Your task to perform on an android device: Clear all items from cart on costco.com. Add energizer triple a to the cart on costco.com, then select checkout. Image 0: 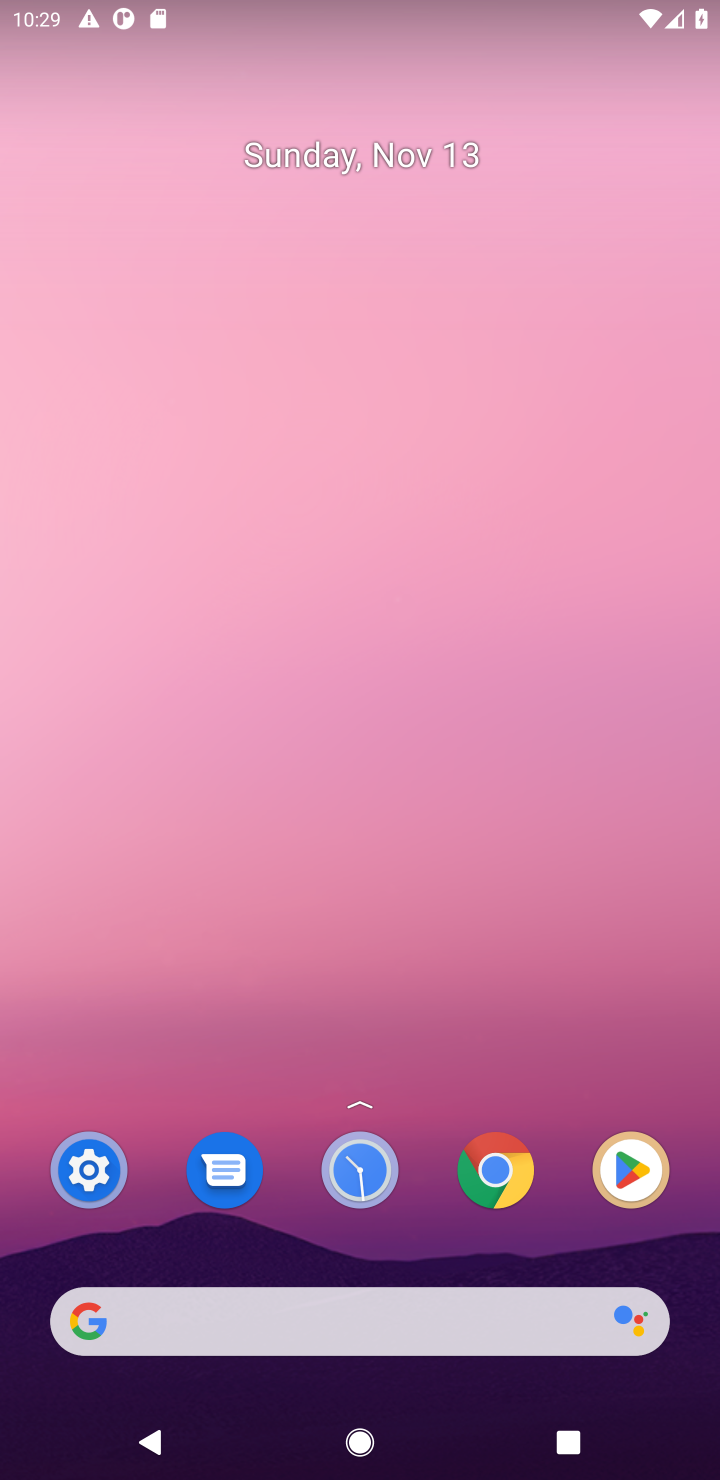
Step 0: click (422, 1304)
Your task to perform on an android device: Clear all items from cart on costco.com. Add energizer triple a to the cart on costco.com, then select checkout. Image 1: 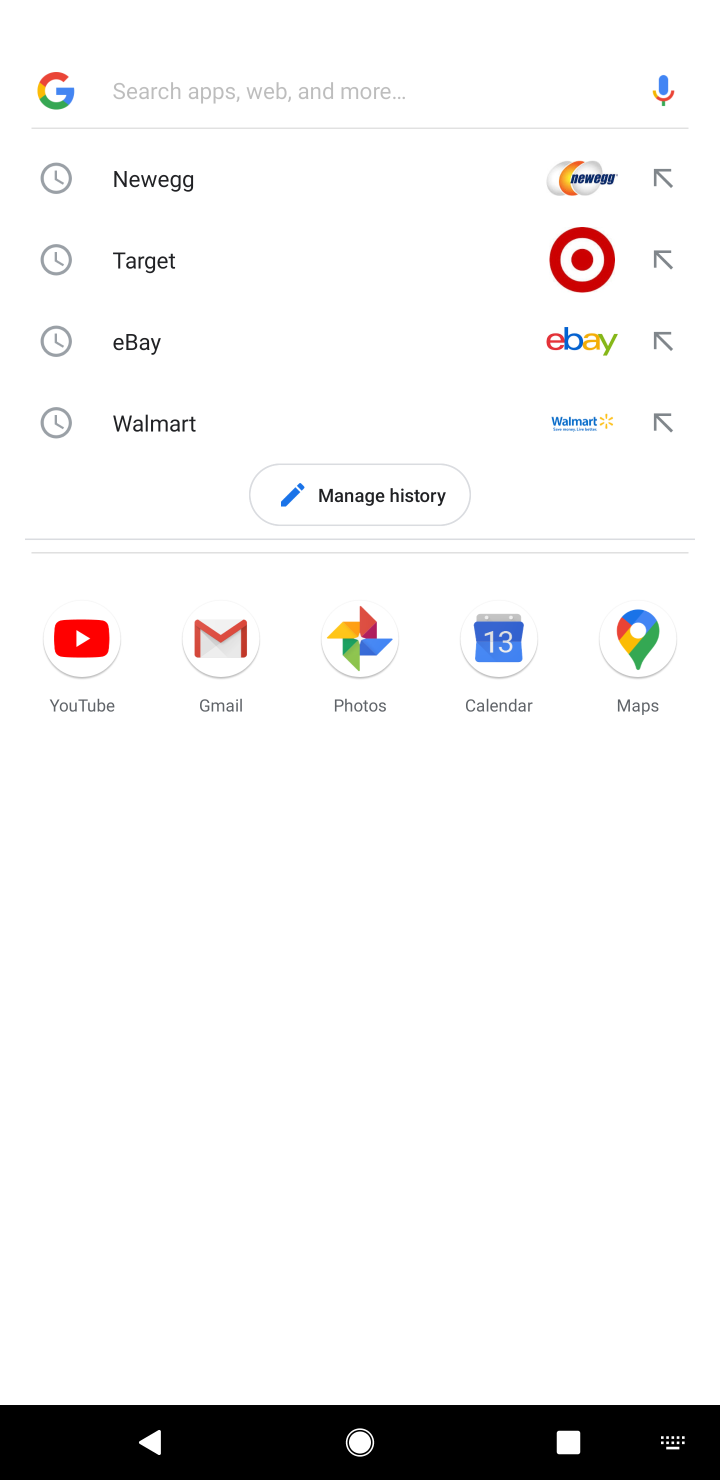
Step 1: type "costco.com"
Your task to perform on an android device: Clear all items from cart on costco.com. Add energizer triple a to the cart on costco.com, then select checkout. Image 2: 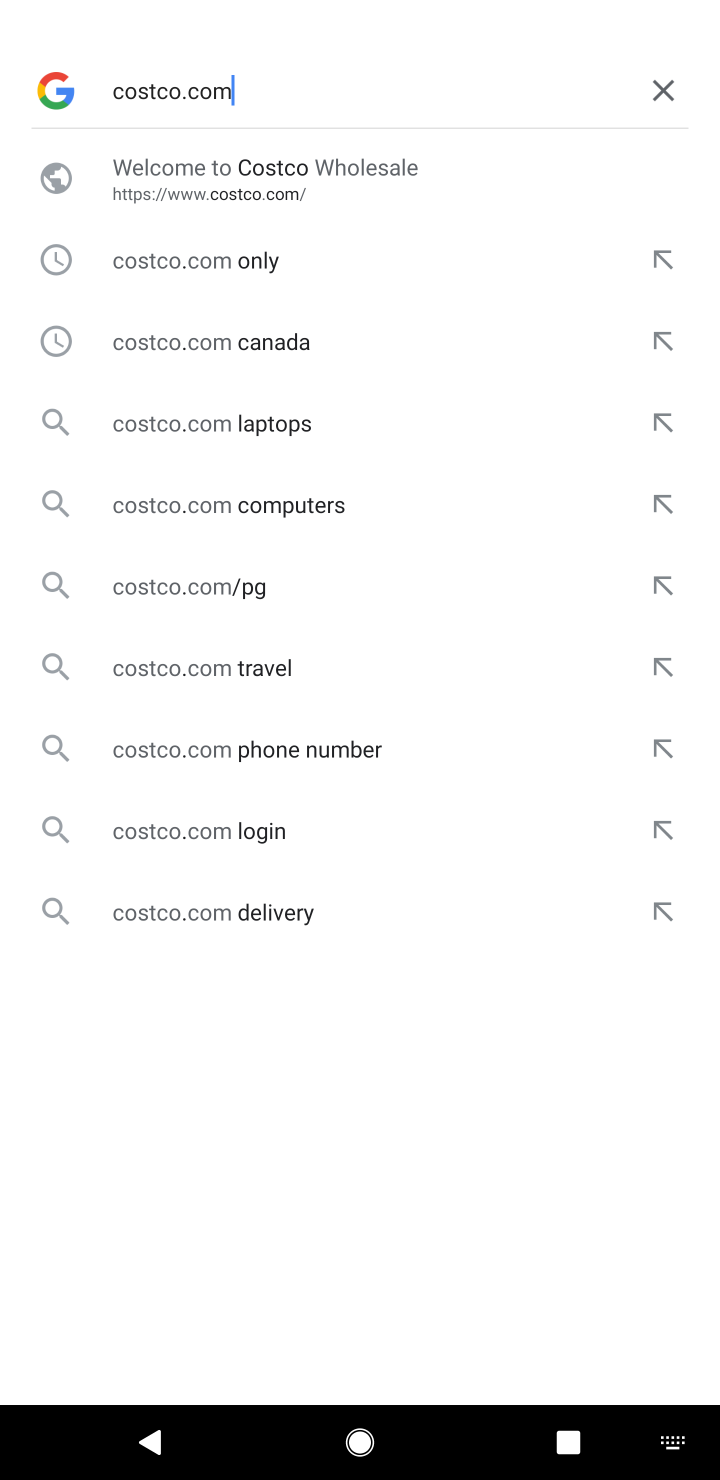
Step 2: click (215, 219)
Your task to perform on an android device: Clear all items from cart on costco.com. Add energizer triple a to the cart on costco.com, then select checkout. Image 3: 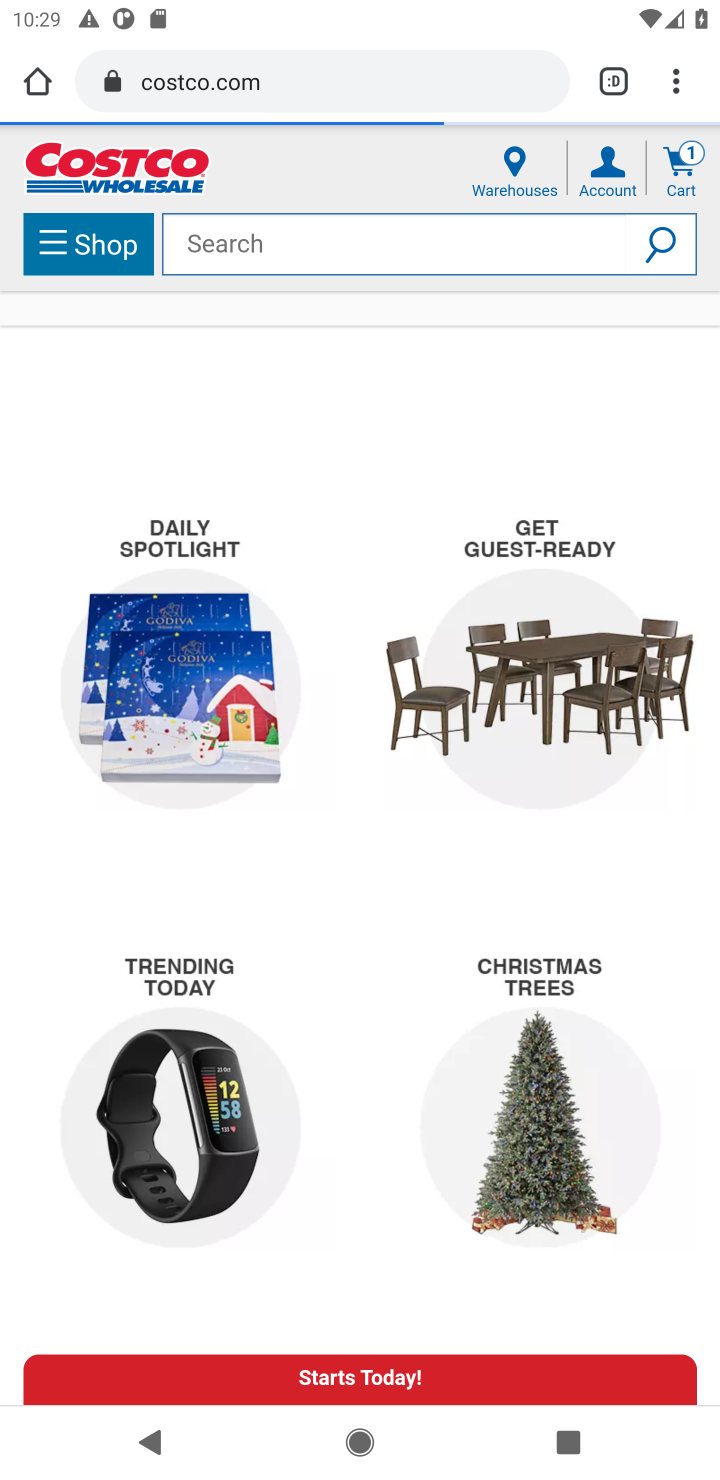
Step 3: click (550, 248)
Your task to perform on an android device: Clear all items from cart on costco.com. Add energizer triple a to the cart on costco.com, then select checkout. Image 4: 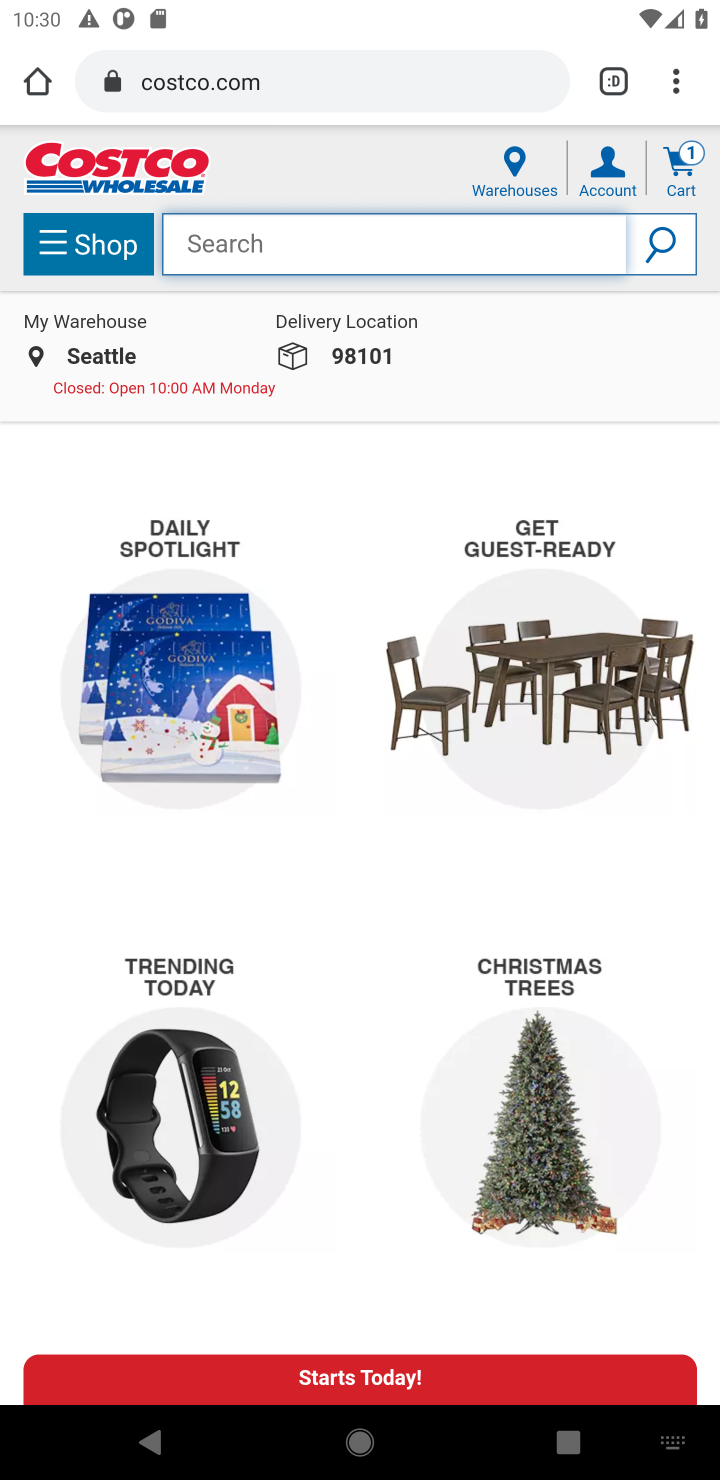
Step 4: type "energizer"
Your task to perform on an android device: Clear all items from cart on costco.com. Add energizer triple a to the cart on costco.com, then select checkout. Image 5: 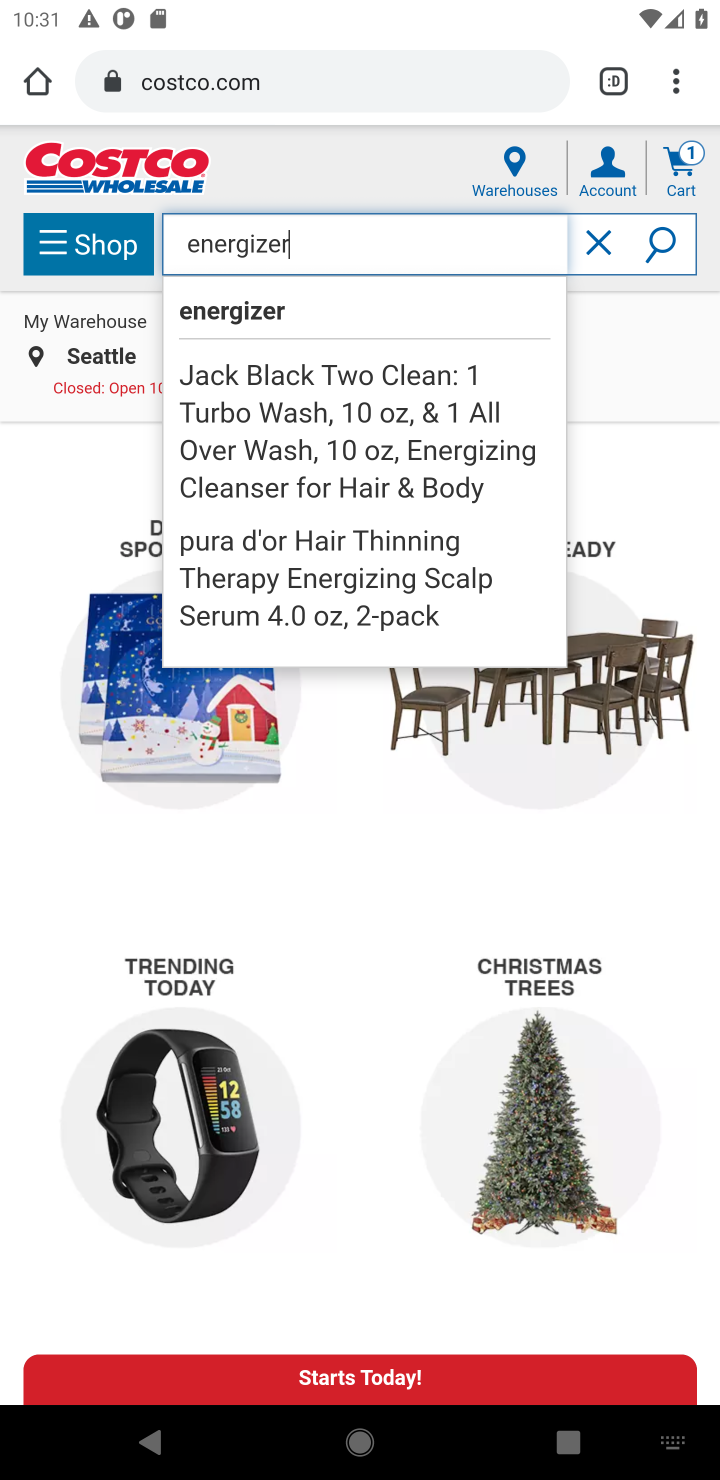
Step 5: type "triple a"
Your task to perform on an android device: Clear all items from cart on costco.com. Add energizer triple a to the cart on costco.com, then select checkout. Image 6: 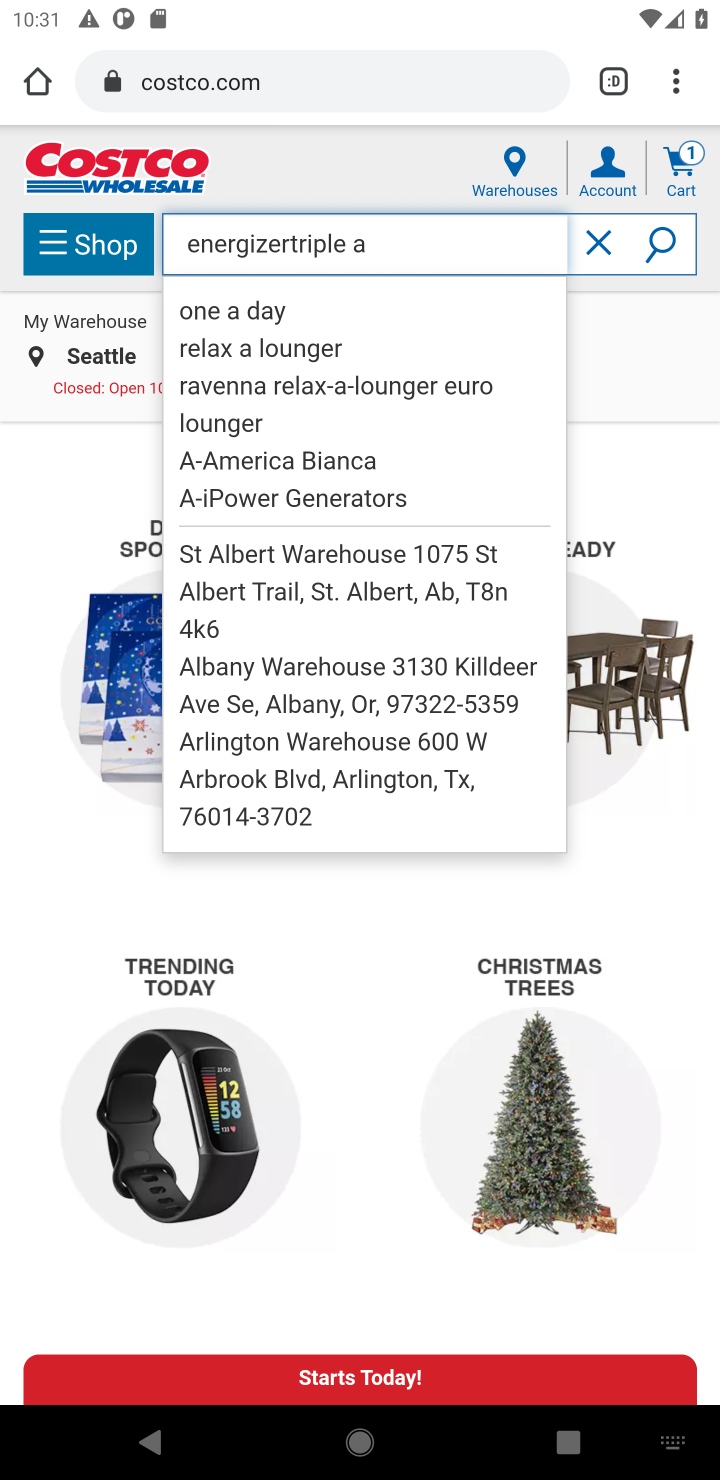
Step 6: click (681, 258)
Your task to perform on an android device: Clear all items from cart on costco.com. Add energizer triple a to the cart on costco.com, then select checkout. Image 7: 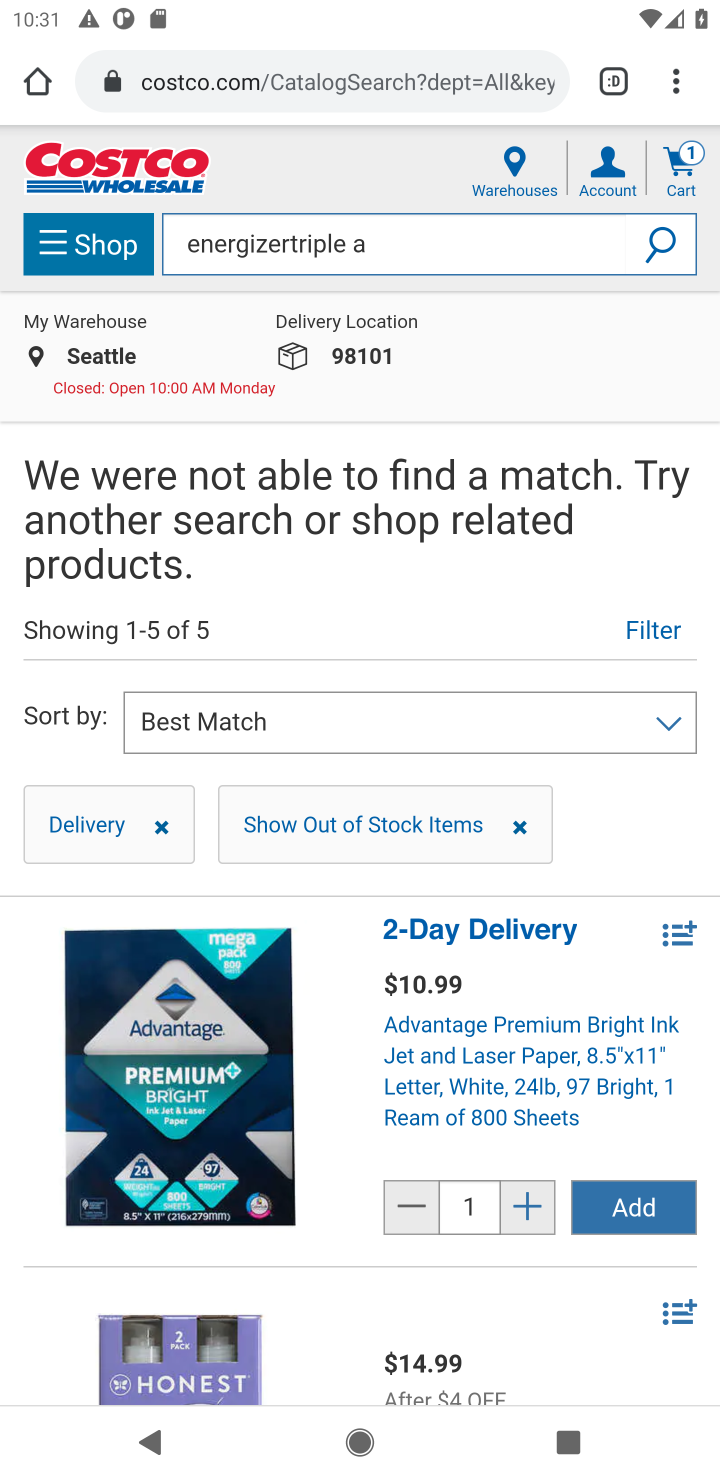
Step 7: click (611, 1202)
Your task to perform on an android device: Clear all items from cart on costco.com. Add energizer triple a to the cart on costco.com, then select checkout. Image 8: 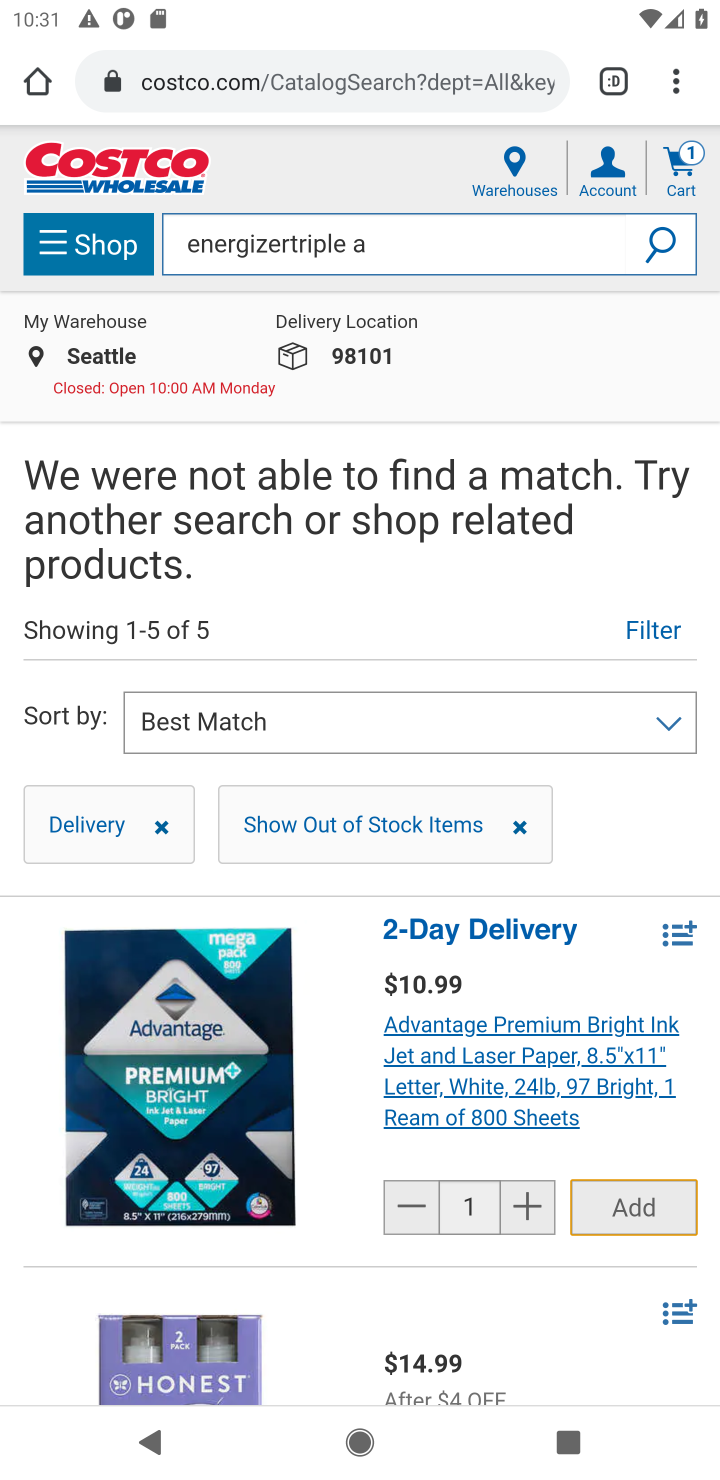
Step 8: task complete